Your task to perform on an android device: open a bookmark in the chrome app Image 0: 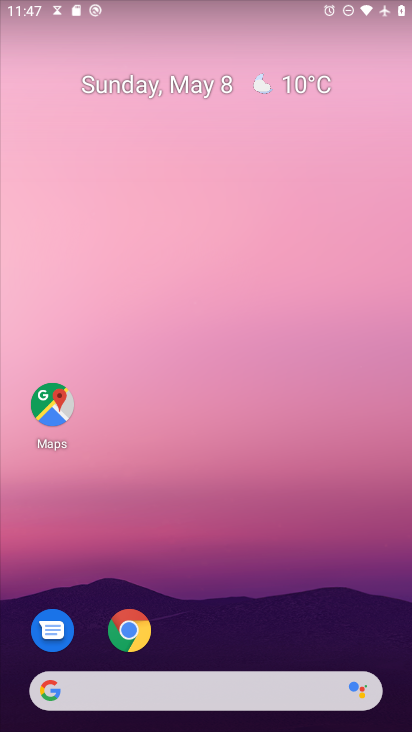
Step 0: drag from (167, 683) to (300, 282)
Your task to perform on an android device: open a bookmark in the chrome app Image 1: 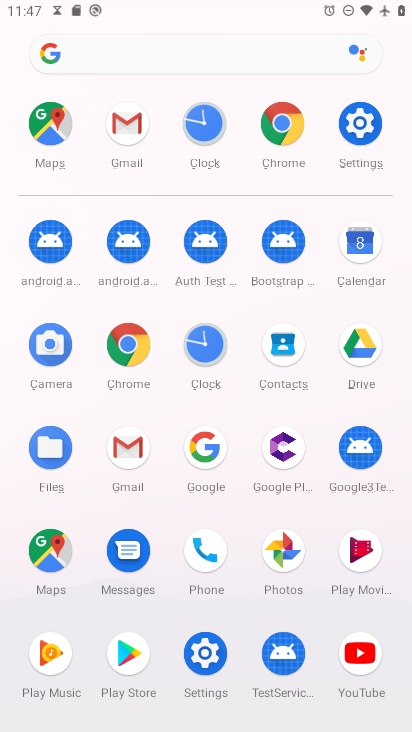
Step 1: click (289, 135)
Your task to perform on an android device: open a bookmark in the chrome app Image 2: 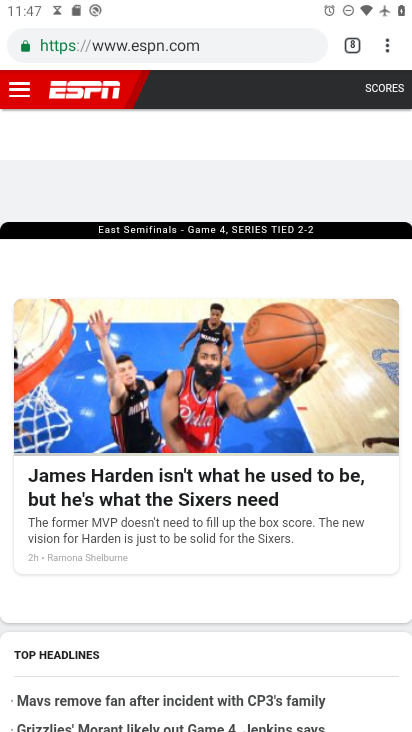
Step 2: task complete